Your task to perform on an android device: add a contact in the contacts app Image 0: 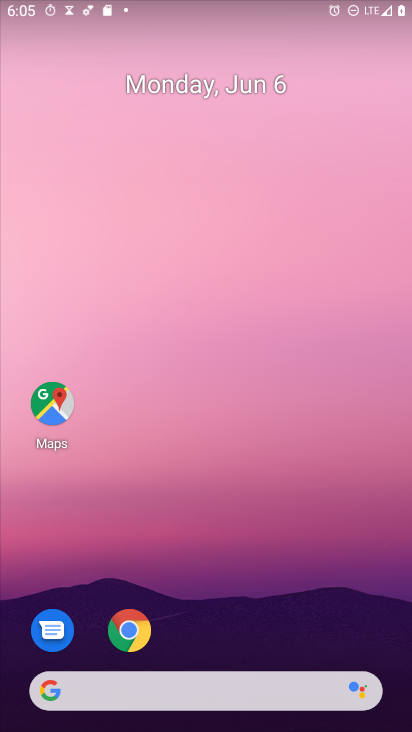
Step 0: drag from (236, 24) to (187, 3)
Your task to perform on an android device: add a contact in the contacts app Image 1: 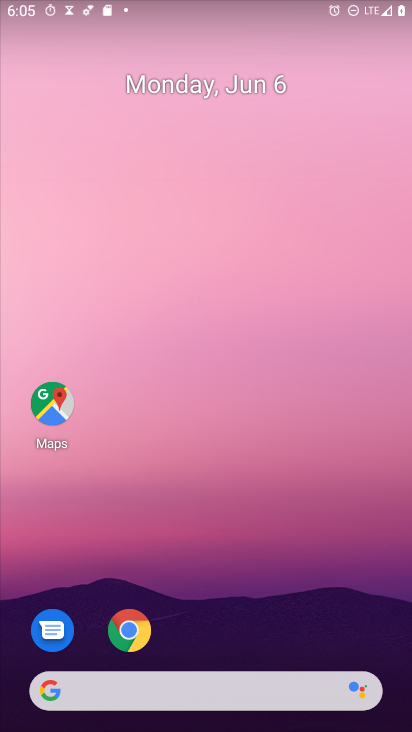
Step 1: drag from (253, 496) to (238, 39)
Your task to perform on an android device: add a contact in the contacts app Image 2: 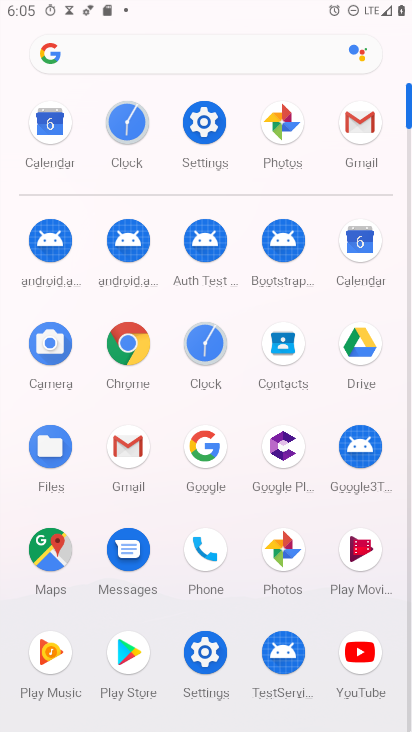
Step 2: click (283, 325)
Your task to perform on an android device: add a contact in the contacts app Image 3: 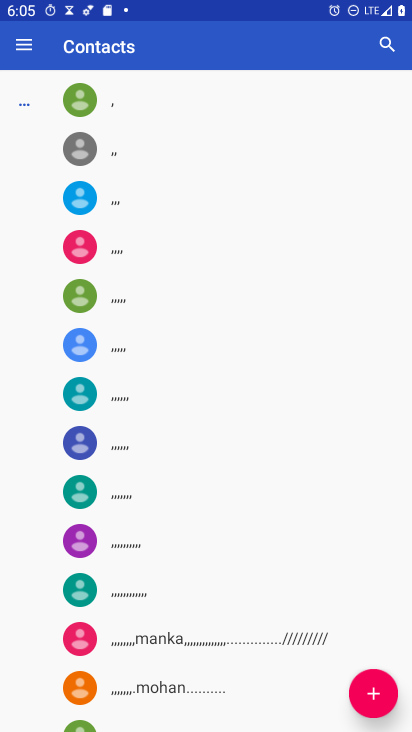
Step 3: click (376, 700)
Your task to perform on an android device: add a contact in the contacts app Image 4: 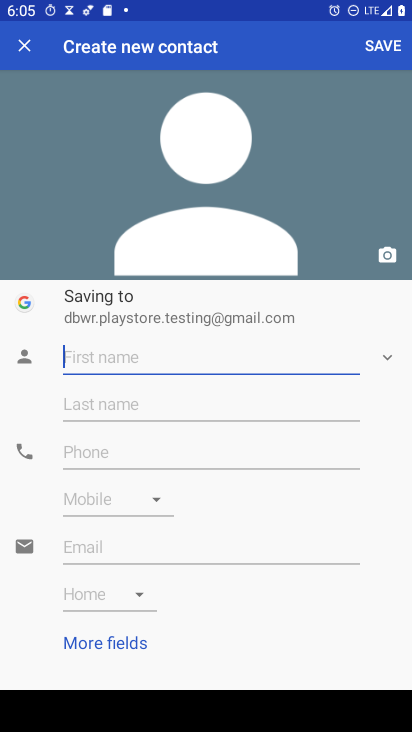
Step 4: type "uibhb"
Your task to perform on an android device: add a contact in the contacts app Image 5: 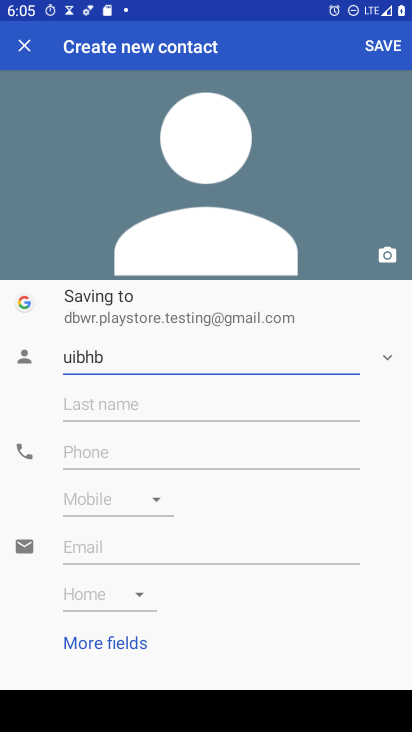
Step 5: click (340, 415)
Your task to perform on an android device: add a contact in the contacts app Image 6: 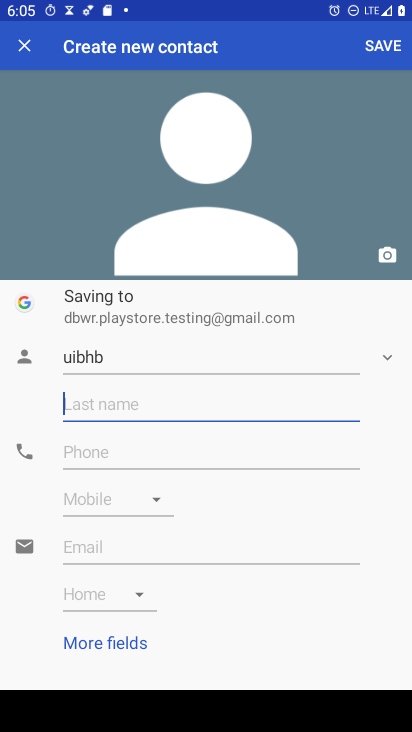
Step 6: type "gjgg"
Your task to perform on an android device: add a contact in the contacts app Image 7: 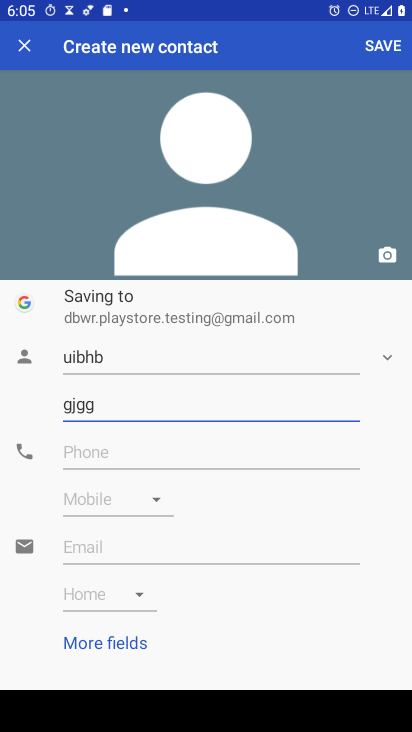
Step 7: click (226, 449)
Your task to perform on an android device: add a contact in the contacts app Image 8: 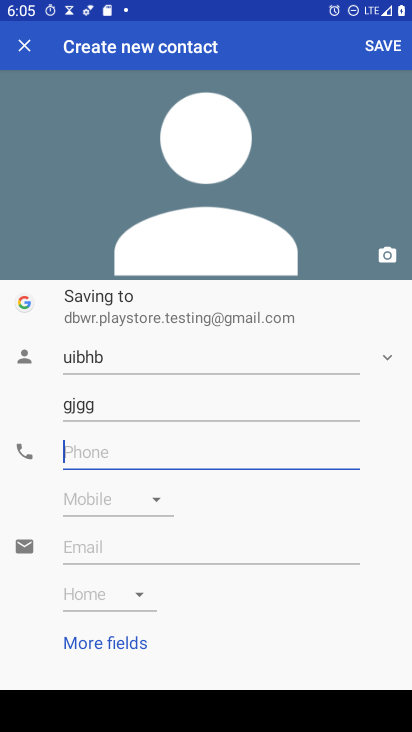
Step 8: type "7667766"
Your task to perform on an android device: add a contact in the contacts app Image 9: 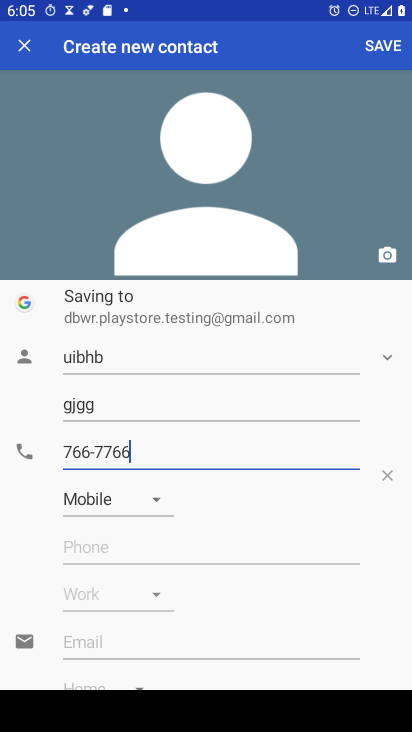
Step 9: type ""
Your task to perform on an android device: add a contact in the contacts app Image 10: 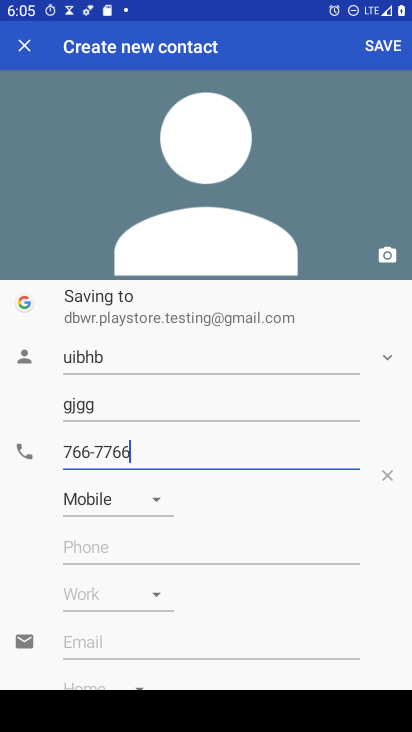
Step 10: click (388, 39)
Your task to perform on an android device: add a contact in the contacts app Image 11: 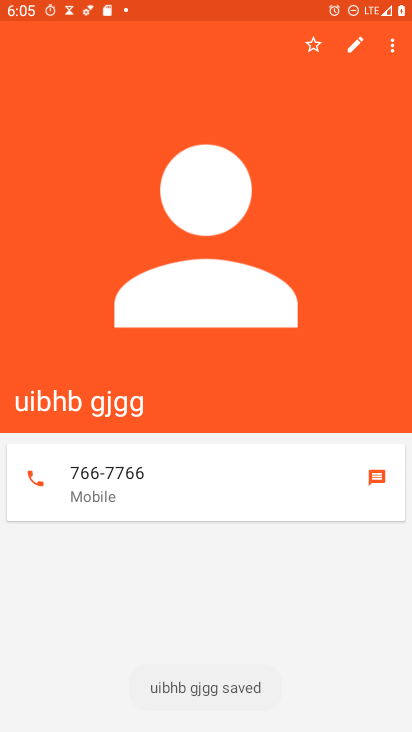
Step 11: task complete